Your task to perform on an android device: See recent photos Image 0: 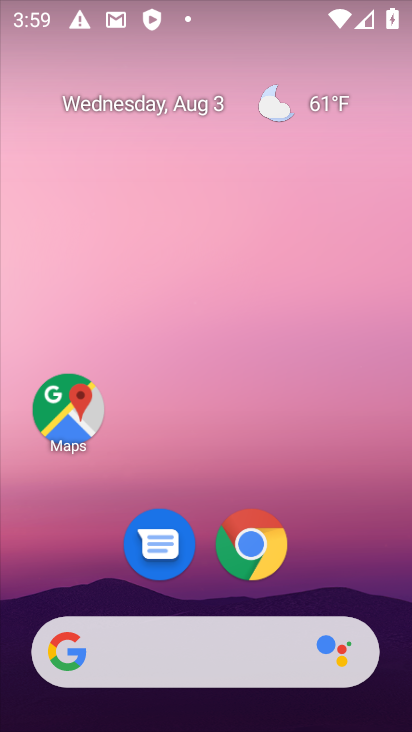
Step 0: drag from (294, 575) to (308, 52)
Your task to perform on an android device: See recent photos Image 1: 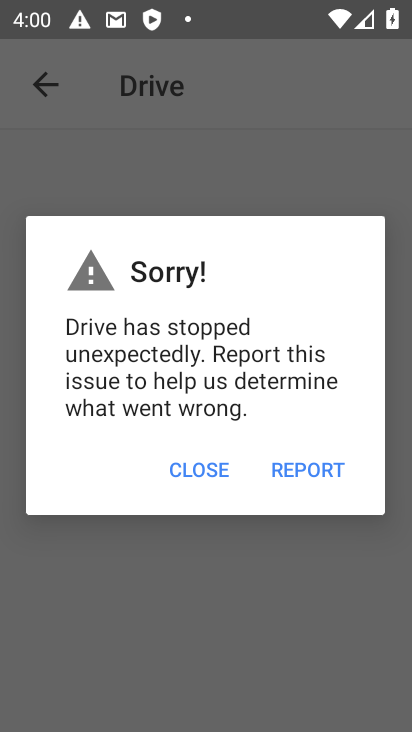
Step 1: press home button
Your task to perform on an android device: See recent photos Image 2: 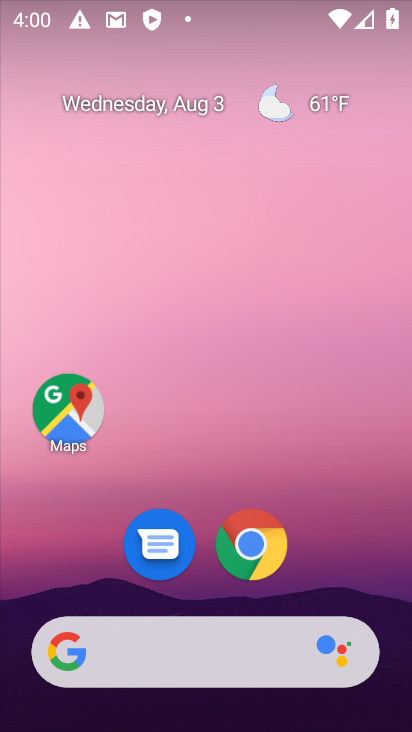
Step 2: drag from (341, 536) to (358, 2)
Your task to perform on an android device: See recent photos Image 3: 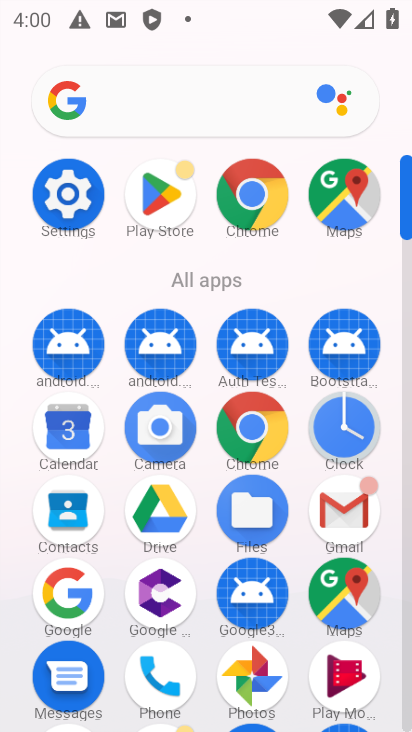
Step 3: click (261, 661)
Your task to perform on an android device: See recent photos Image 4: 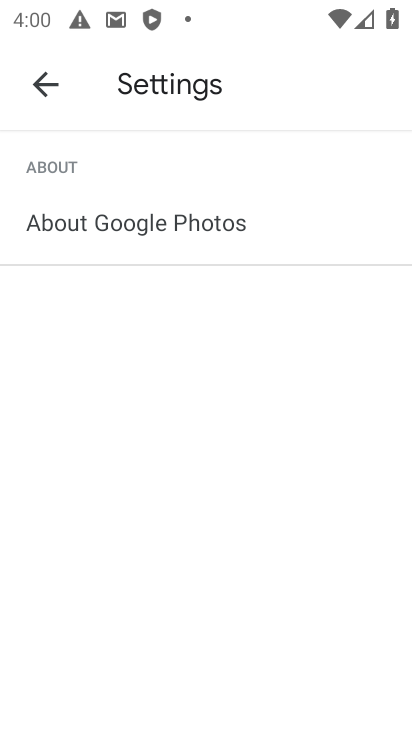
Step 4: click (35, 82)
Your task to perform on an android device: See recent photos Image 5: 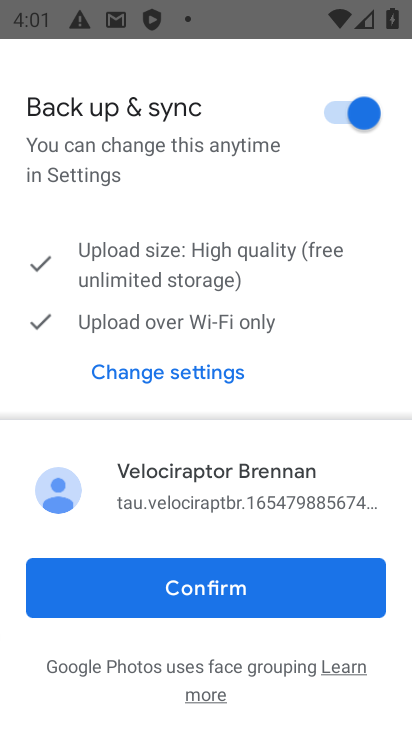
Step 5: click (263, 576)
Your task to perform on an android device: See recent photos Image 6: 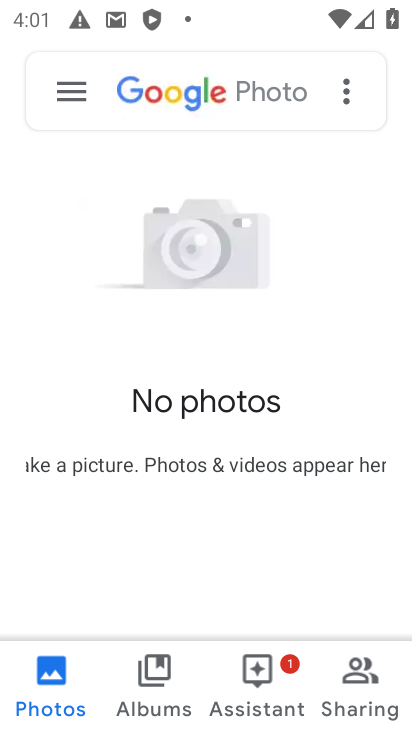
Step 6: task complete